Your task to perform on an android device: Open internet settings Image 0: 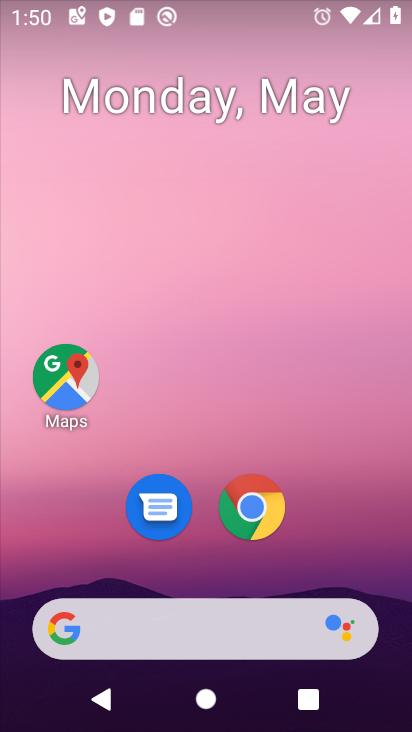
Step 0: drag from (234, 723) to (228, 70)
Your task to perform on an android device: Open internet settings Image 1: 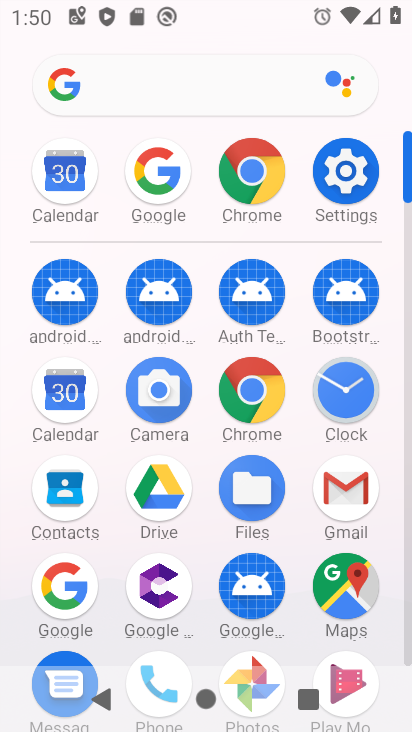
Step 1: click (342, 169)
Your task to perform on an android device: Open internet settings Image 2: 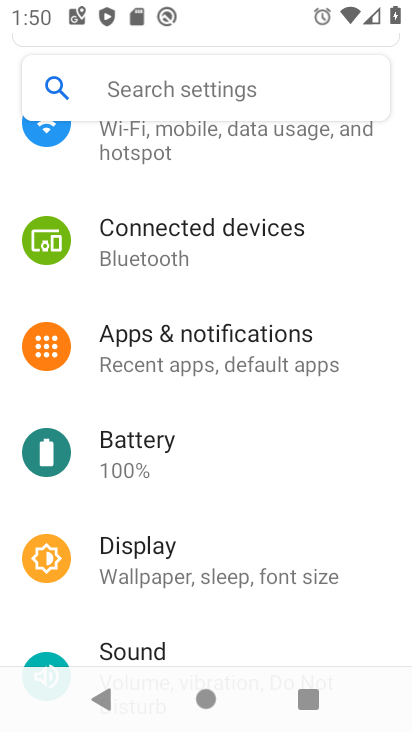
Step 2: drag from (222, 170) to (233, 660)
Your task to perform on an android device: Open internet settings Image 3: 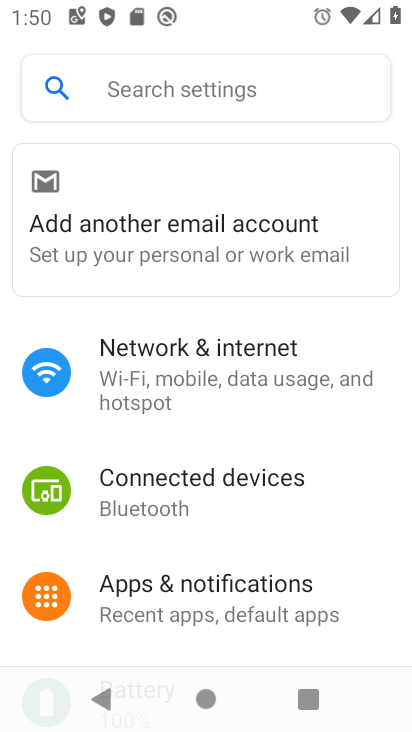
Step 3: click (146, 365)
Your task to perform on an android device: Open internet settings Image 4: 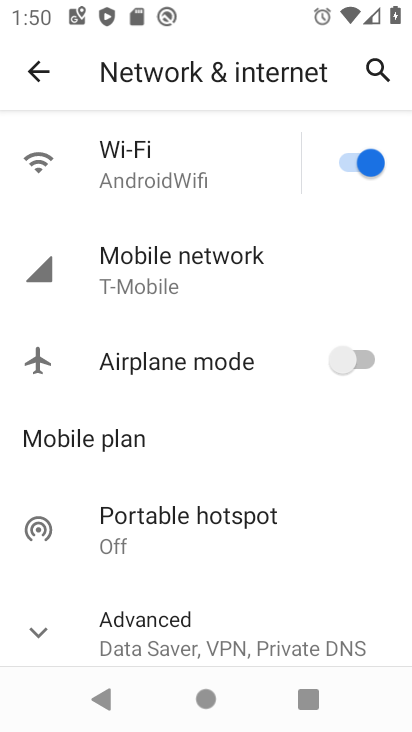
Step 4: task complete